Your task to perform on an android device: Show me productivity apps on the Play Store Image 0: 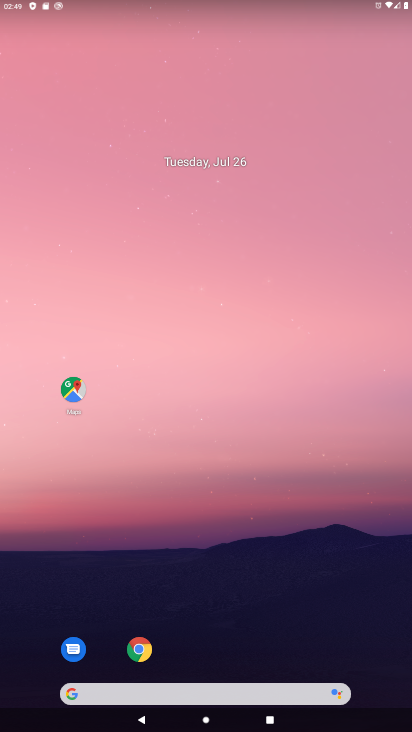
Step 0: drag from (205, 692) to (258, 11)
Your task to perform on an android device: Show me productivity apps on the Play Store Image 1: 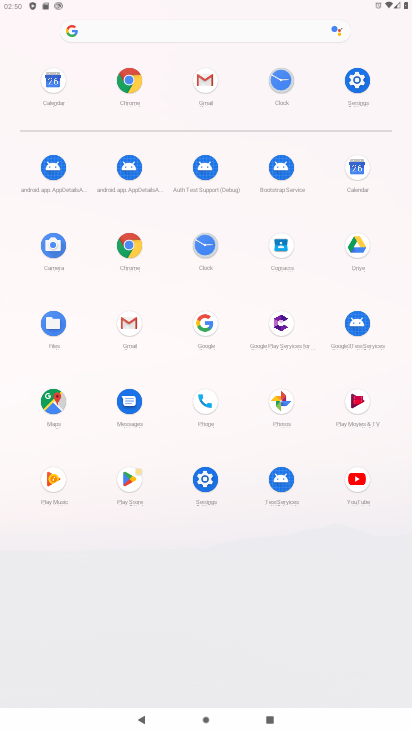
Step 1: click (130, 477)
Your task to perform on an android device: Show me productivity apps on the Play Store Image 2: 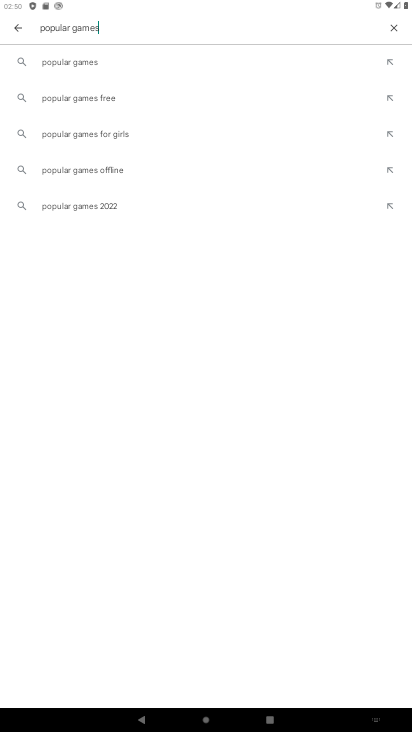
Step 2: press back button
Your task to perform on an android device: Show me productivity apps on the Play Store Image 3: 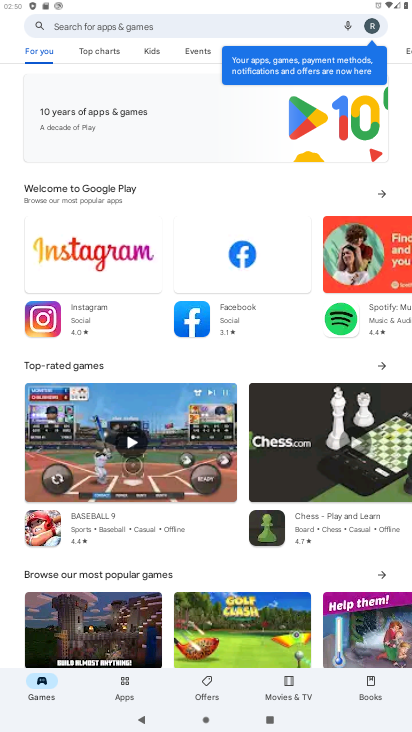
Step 3: click (126, 686)
Your task to perform on an android device: Show me productivity apps on the Play Store Image 4: 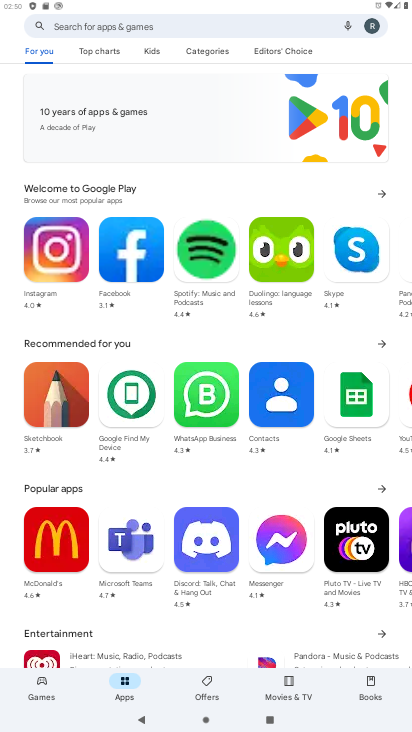
Step 4: click (207, 52)
Your task to perform on an android device: Show me productivity apps on the Play Store Image 5: 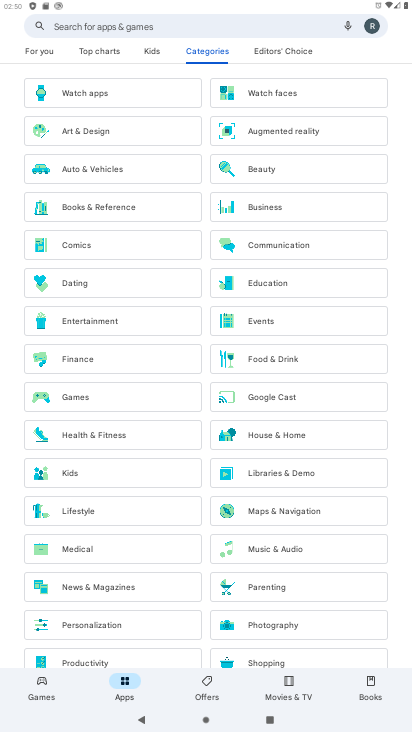
Step 5: drag from (131, 635) to (122, 486)
Your task to perform on an android device: Show me productivity apps on the Play Store Image 6: 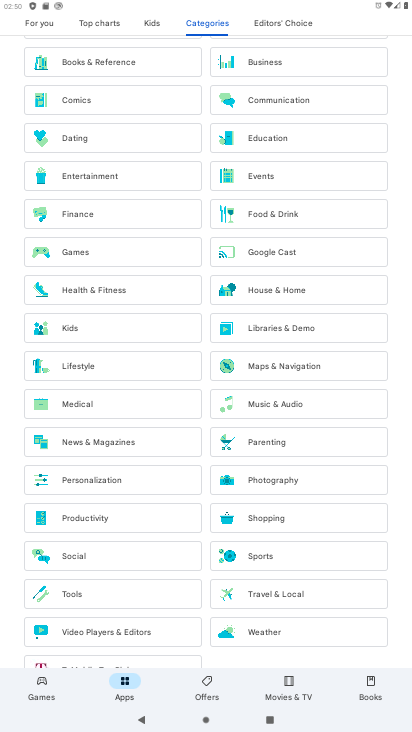
Step 6: click (103, 517)
Your task to perform on an android device: Show me productivity apps on the Play Store Image 7: 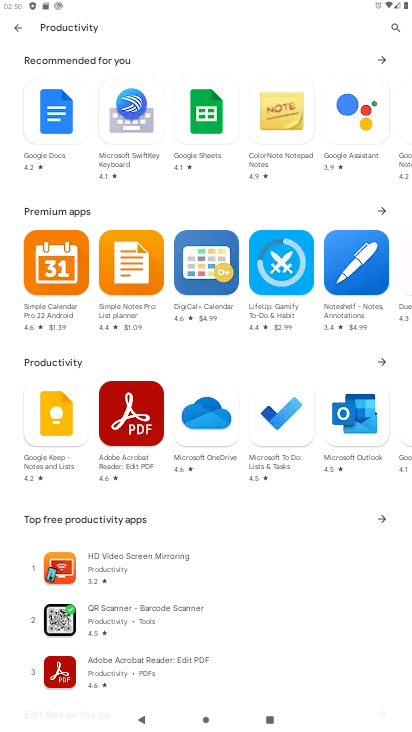
Step 7: task complete